Your task to perform on an android device: Open location settings Image 0: 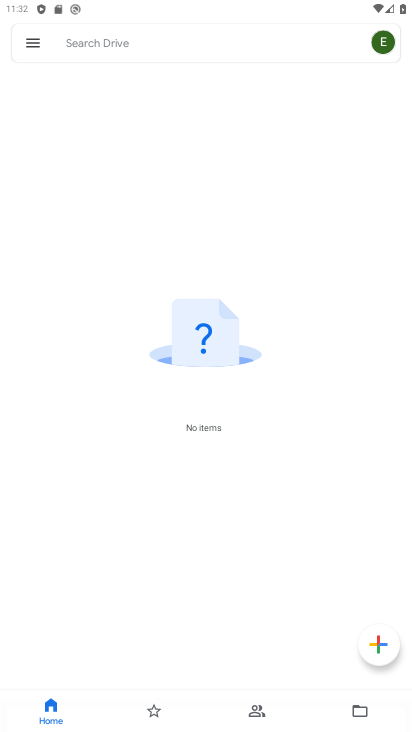
Step 0: press home button
Your task to perform on an android device: Open location settings Image 1: 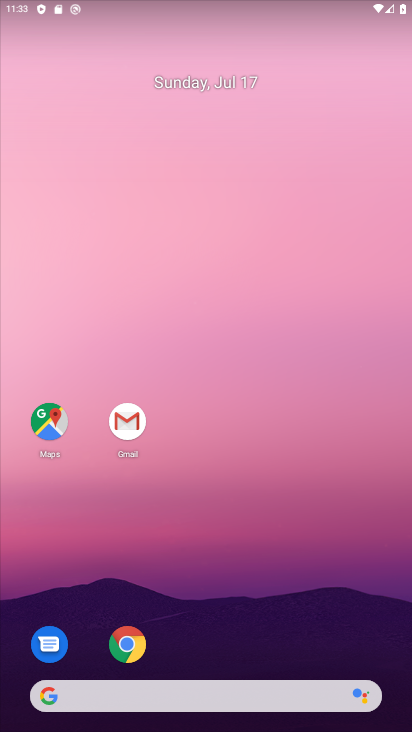
Step 1: drag from (390, 689) to (182, 2)
Your task to perform on an android device: Open location settings Image 2: 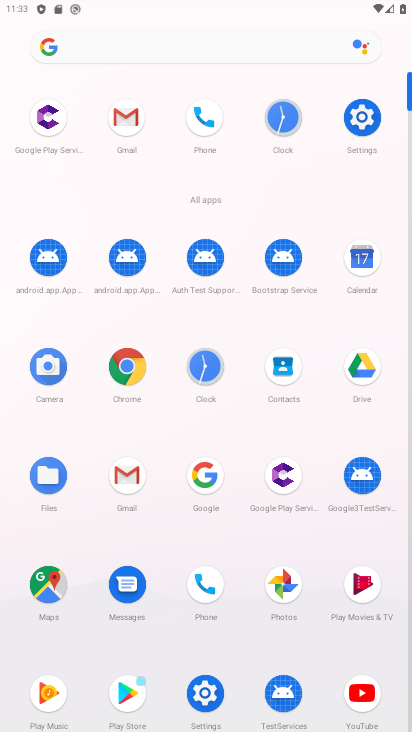
Step 2: drag from (363, 108) to (212, 416)
Your task to perform on an android device: Open location settings Image 3: 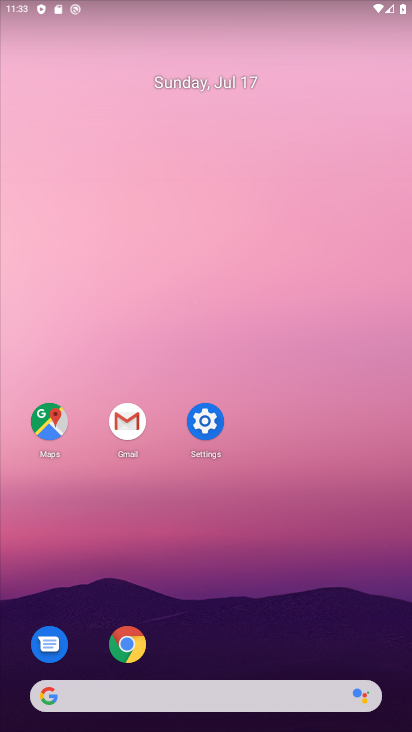
Step 3: click (221, 416)
Your task to perform on an android device: Open location settings Image 4: 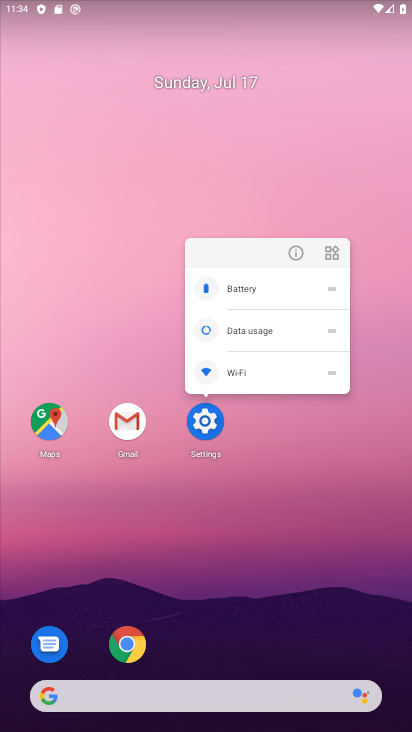
Step 4: click (207, 427)
Your task to perform on an android device: Open location settings Image 5: 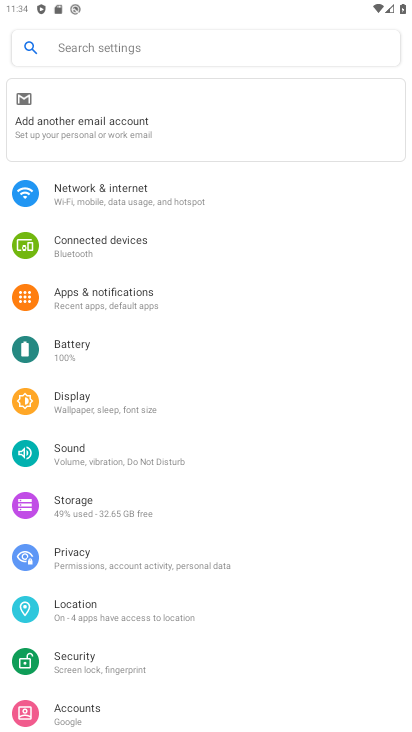
Step 5: click (81, 604)
Your task to perform on an android device: Open location settings Image 6: 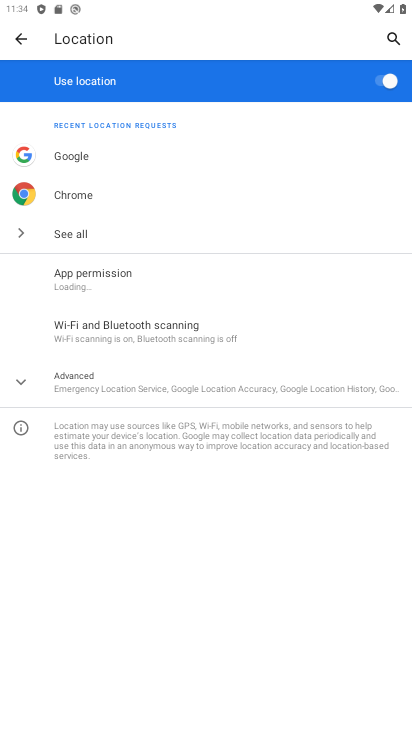
Step 6: click (18, 385)
Your task to perform on an android device: Open location settings Image 7: 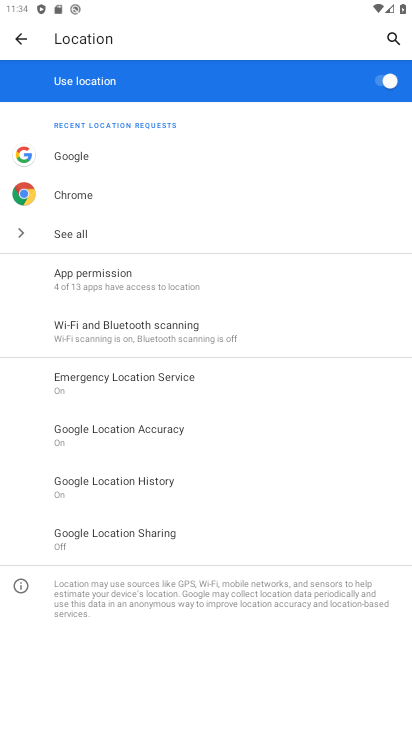
Step 7: task complete